Your task to perform on an android device: What is the recent news? Image 0: 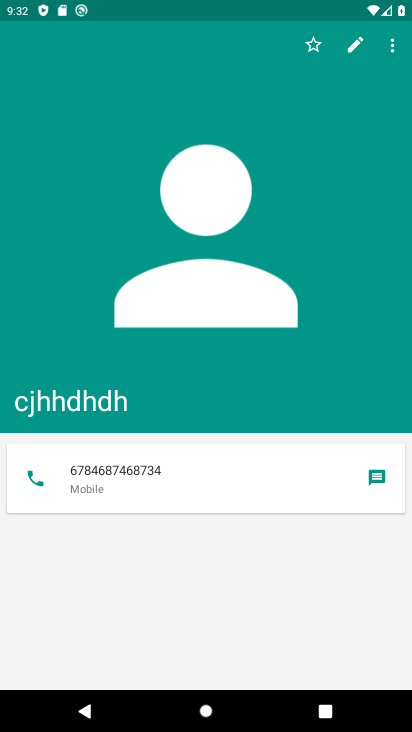
Step 0: press back button
Your task to perform on an android device: What is the recent news? Image 1: 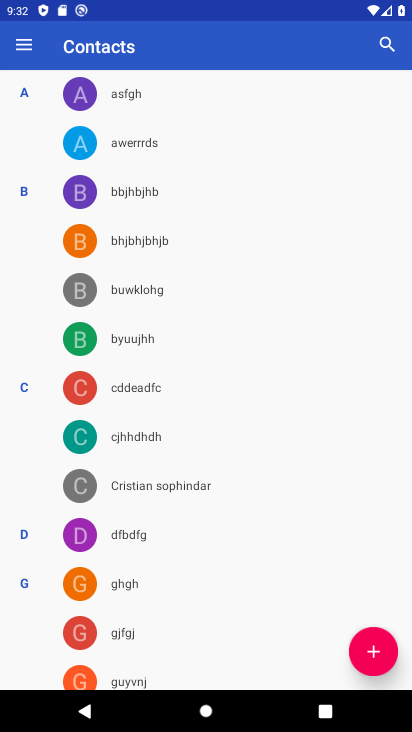
Step 1: press home button
Your task to perform on an android device: What is the recent news? Image 2: 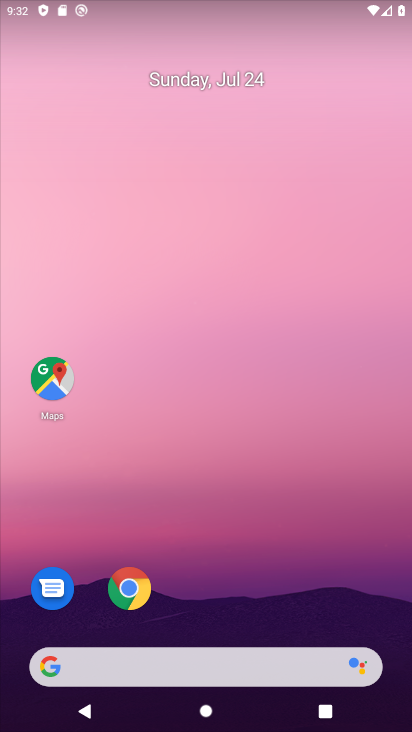
Step 2: drag from (242, 644) to (226, 155)
Your task to perform on an android device: What is the recent news? Image 3: 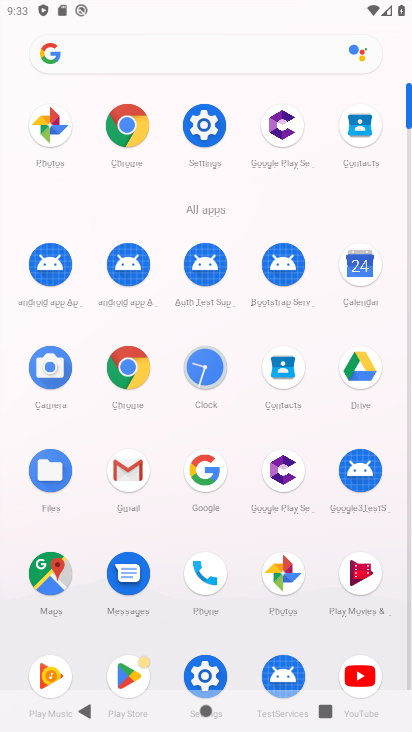
Step 3: click (132, 124)
Your task to perform on an android device: What is the recent news? Image 4: 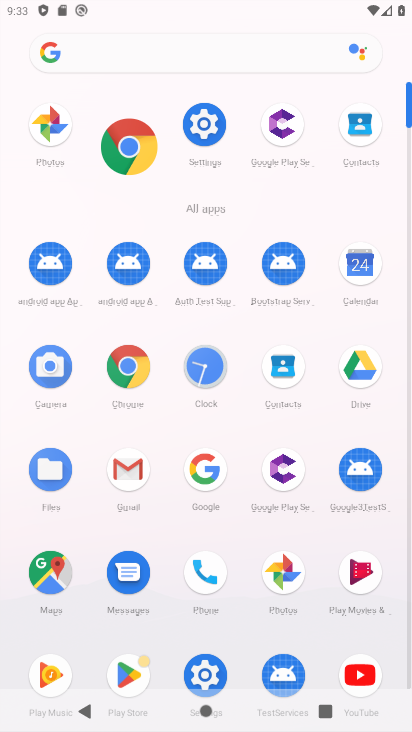
Step 4: click (129, 125)
Your task to perform on an android device: What is the recent news? Image 5: 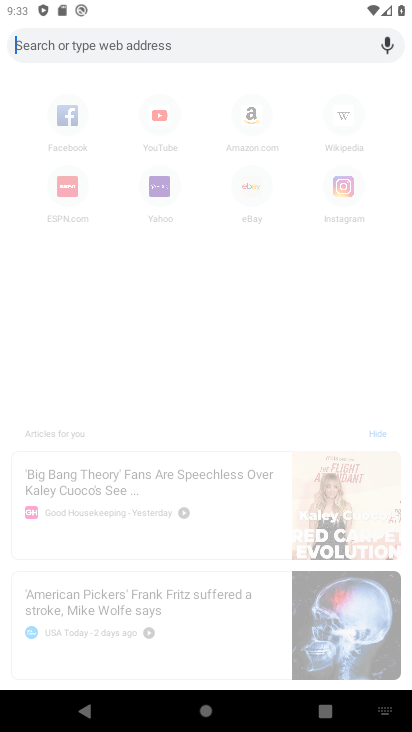
Step 5: task complete